Your task to perform on an android device: Do I have any events this weekend? Image 0: 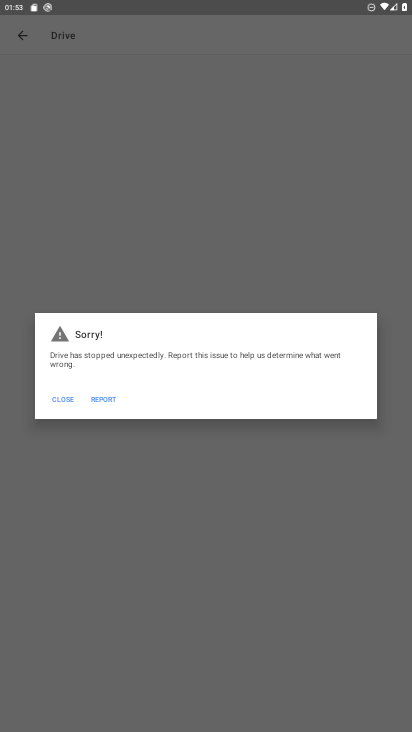
Step 0: press home button
Your task to perform on an android device: Do I have any events this weekend? Image 1: 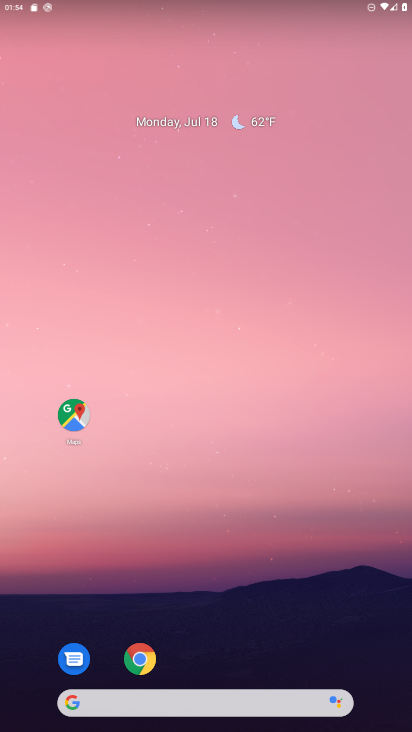
Step 1: drag from (264, 450) to (280, 39)
Your task to perform on an android device: Do I have any events this weekend? Image 2: 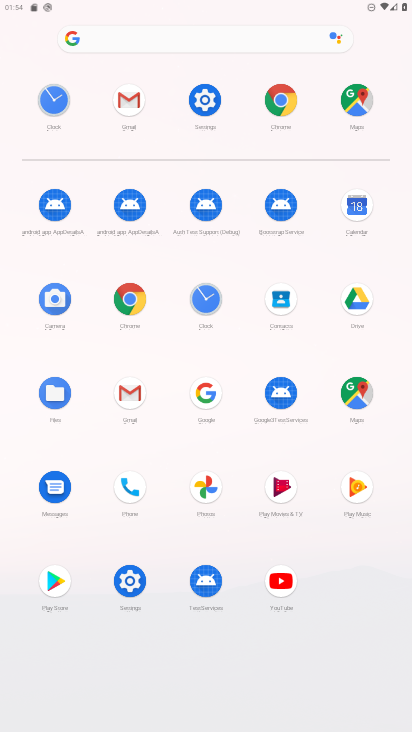
Step 2: click (354, 207)
Your task to perform on an android device: Do I have any events this weekend? Image 3: 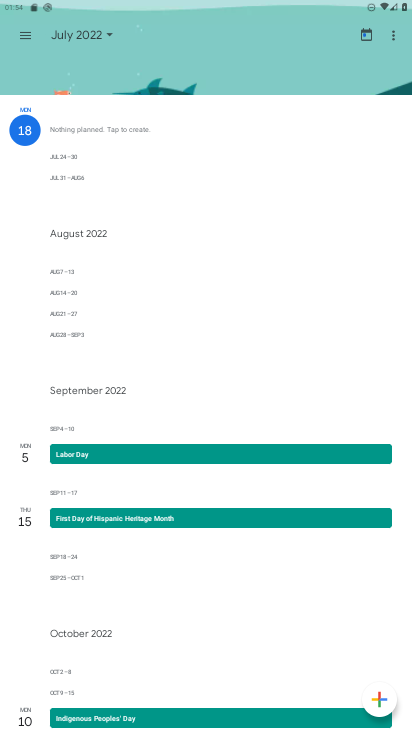
Step 3: click (87, 26)
Your task to perform on an android device: Do I have any events this weekend? Image 4: 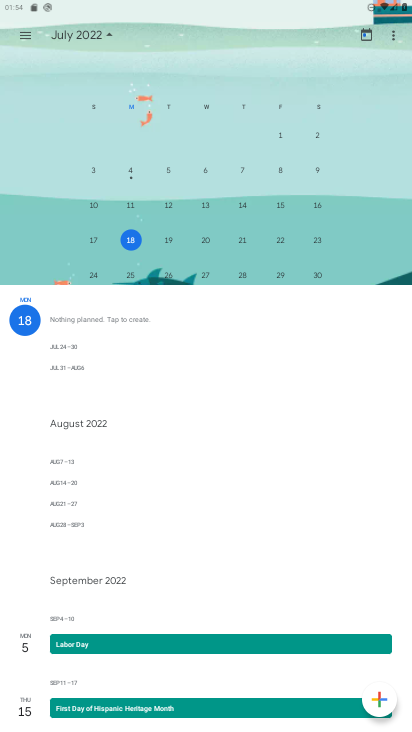
Step 4: click (21, 34)
Your task to perform on an android device: Do I have any events this weekend? Image 5: 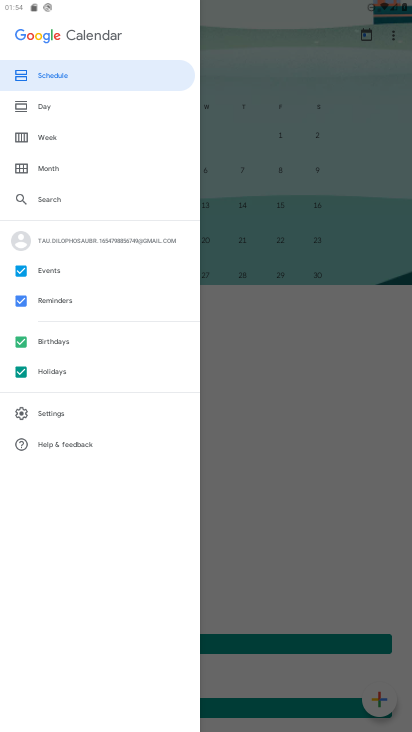
Step 5: click (259, 116)
Your task to perform on an android device: Do I have any events this weekend? Image 6: 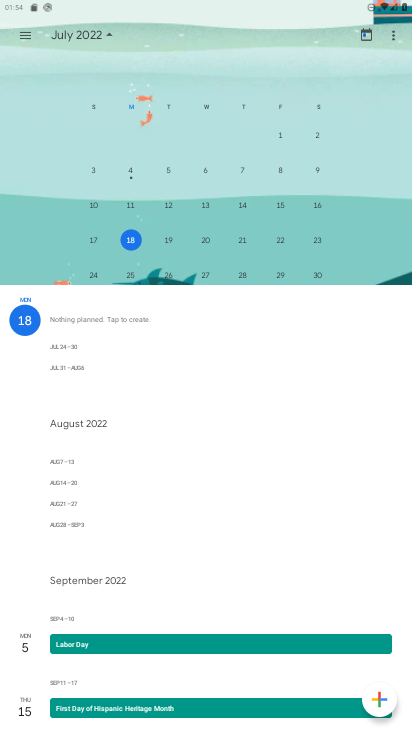
Step 6: click (320, 241)
Your task to perform on an android device: Do I have any events this weekend? Image 7: 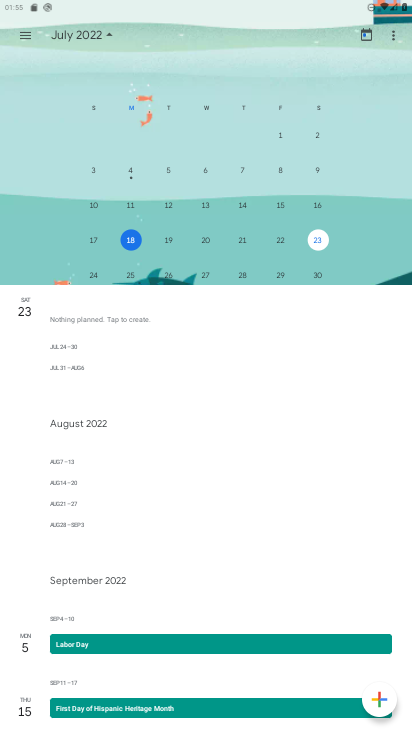
Step 7: task complete